Your task to perform on an android device: toggle sleep mode Image 0: 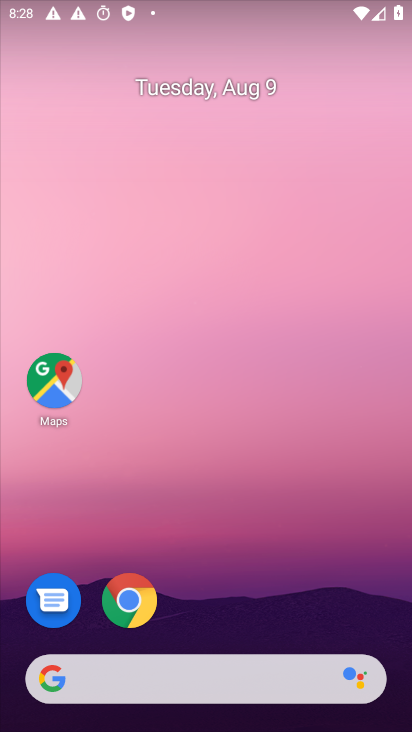
Step 0: press home button
Your task to perform on an android device: toggle sleep mode Image 1: 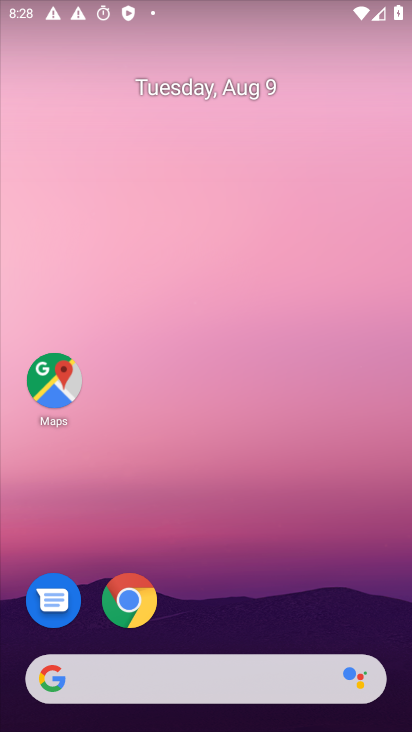
Step 1: drag from (260, 637) to (260, 44)
Your task to perform on an android device: toggle sleep mode Image 2: 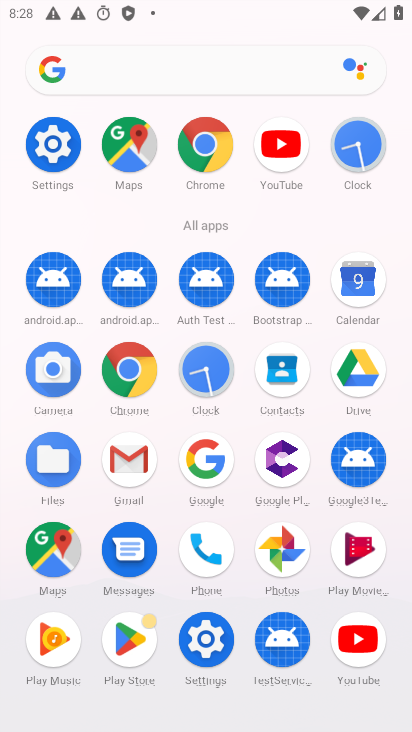
Step 2: click (46, 151)
Your task to perform on an android device: toggle sleep mode Image 3: 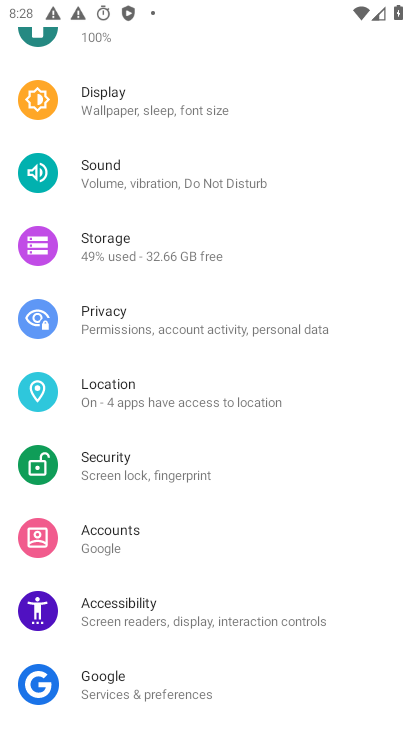
Step 3: click (119, 110)
Your task to perform on an android device: toggle sleep mode Image 4: 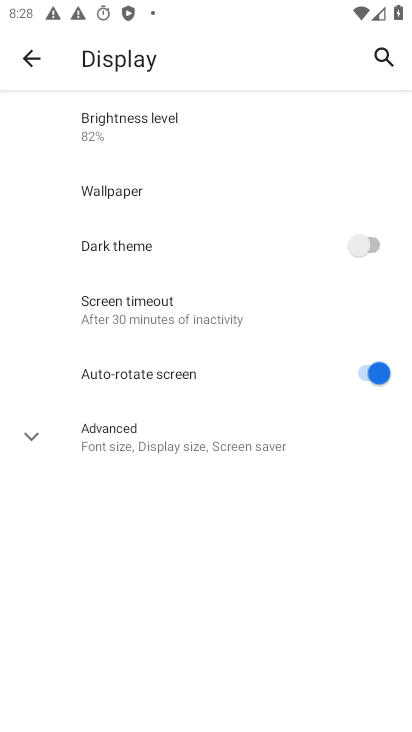
Step 4: task complete